Your task to perform on an android device: Open the calendar app, open the side menu, and click the "Day" option Image 0: 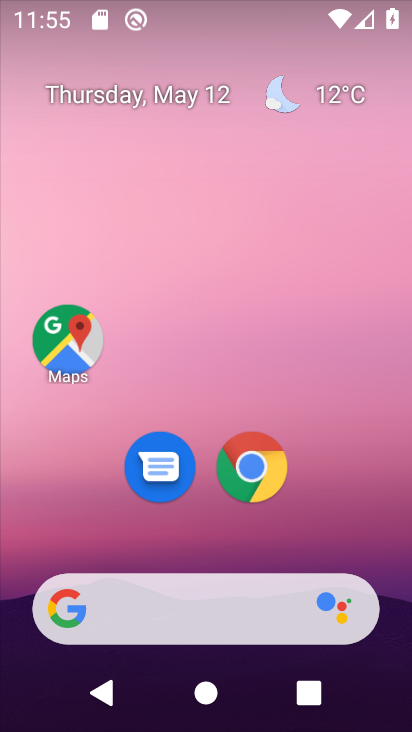
Step 0: drag from (317, 524) to (302, 725)
Your task to perform on an android device: Open the calendar app, open the side menu, and click the "Day" option Image 1: 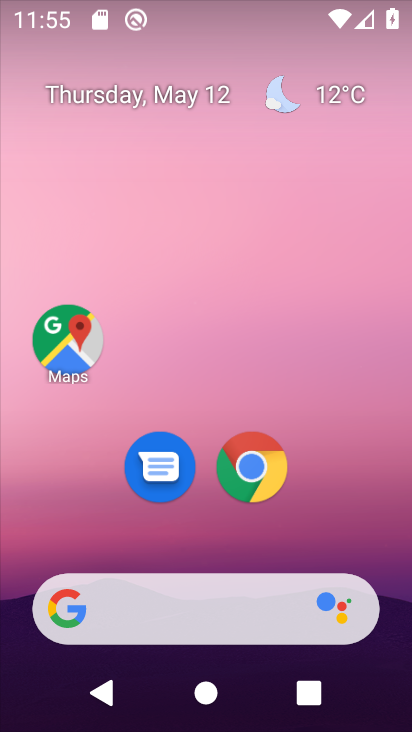
Step 1: click (146, 94)
Your task to perform on an android device: Open the calendar app, open the side menu, and click the "Day" option Image 2: 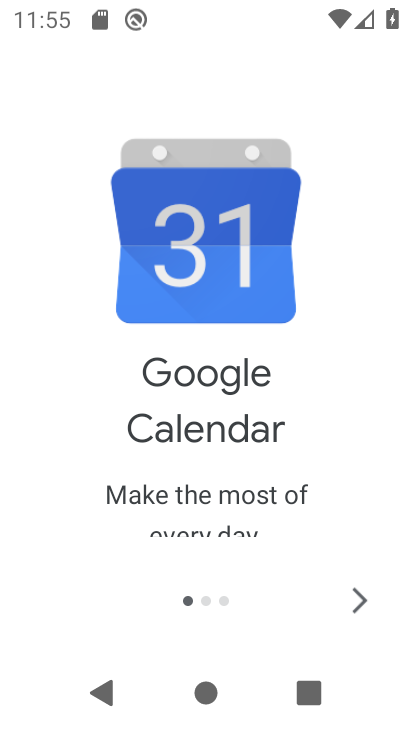
Step 2: click (354, 591)
Your task to perform on an android device: Open the calendar app, open the side menu, and click the "Day" option Image 3: 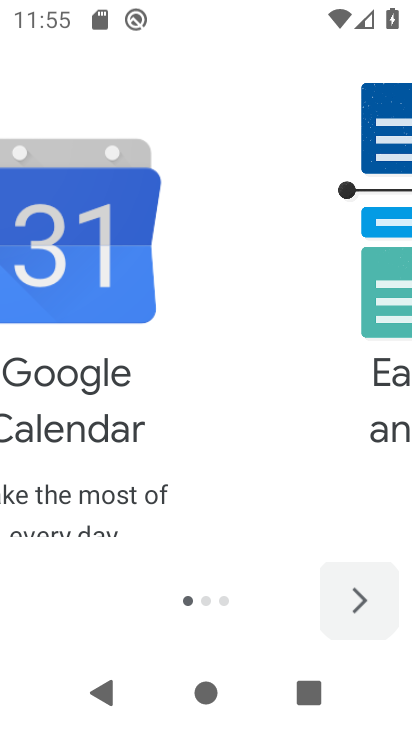
Step 3: click (354, 591)
Your task to perform on an android device: Open the calendar app, open the side menu, and click the "Day" option Image 4: 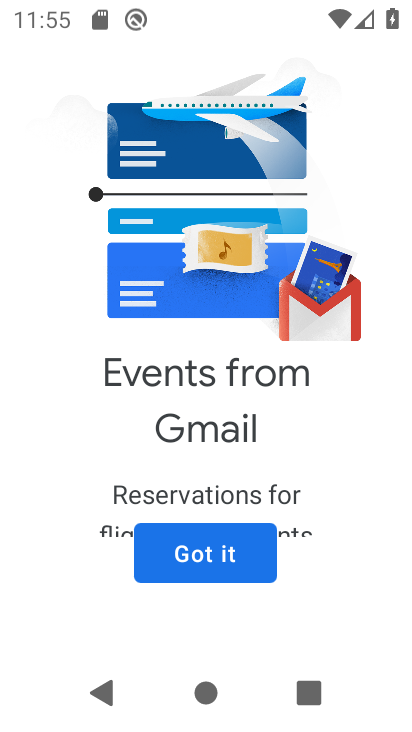
Step 4: click (212, 573)
Your task to perform on an android device: Open the calendar app, open the side menu, and click the "Day" option Image 5: 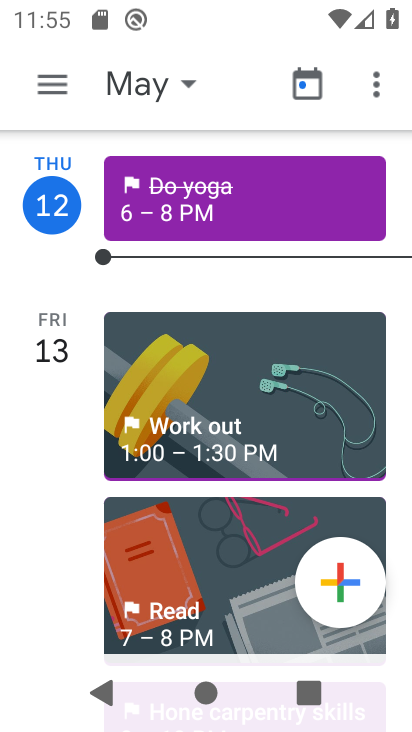
Step 5: click (55, 87)
Your task to perform on an android device: Open the calendar app, open the side menu, and click the "Day" option Image 6: 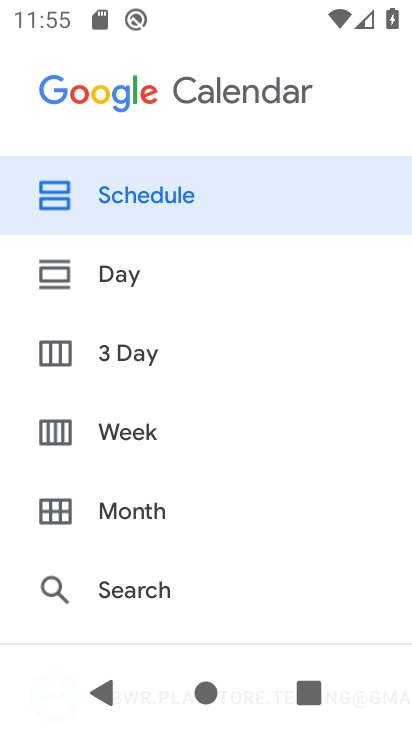
Step 6: click (136, 269)
Your task to perform on an android device: Open the calendar app, open the side menu, and click the "Day" option Image 7: 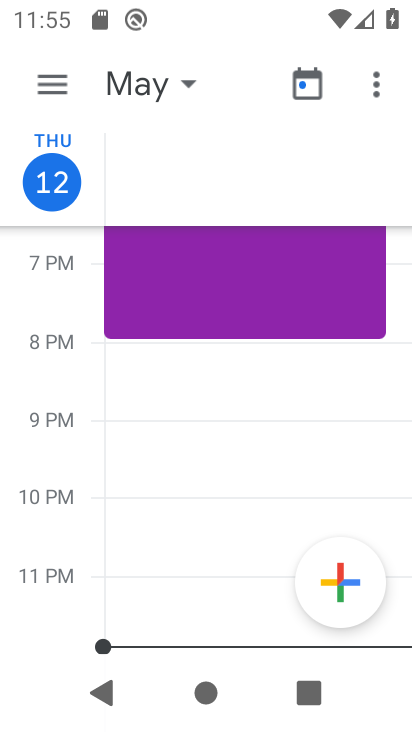
Step 7: task complete